Your task to perform on an android device: Open Youtube and go to the subscriptions tab Image 0: 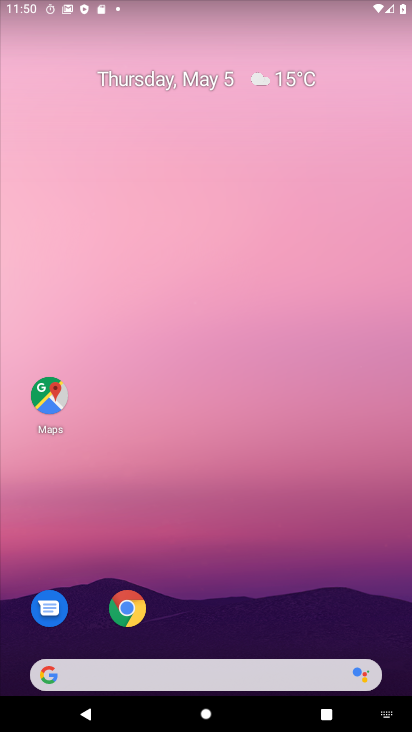
Step 0: drag from (247, 588) to (253, 47)
Your task to perform on an android device: Open Youtube and go to the subscriptions tab Image 1: 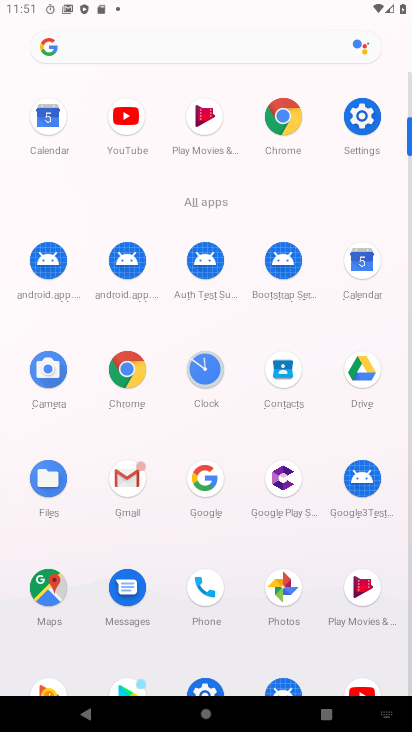
Step 1: click (125, 117)
Your task to perform on an android device: Open Youtube and go to the subscriptions tab Image 2: 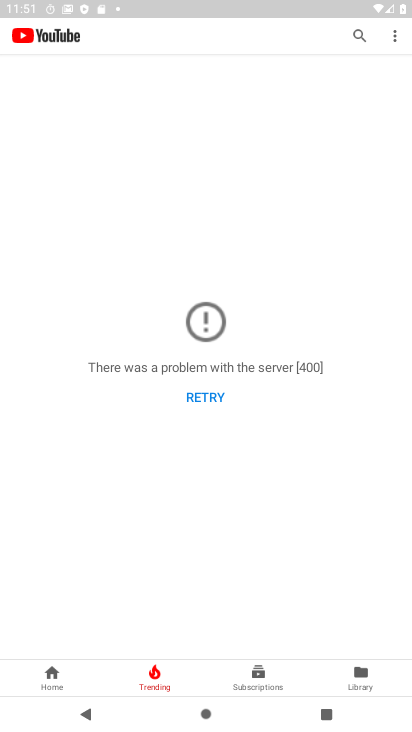
Step 2: click (258, 672)
Your task to perform on an android device: Open Youtube and go to the subscriptions tab Image 3: 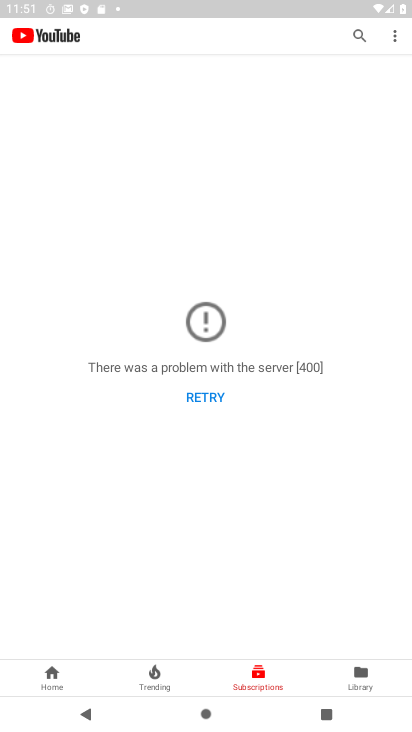
Step 3: task complete